Your task to perform on an android device: Show me recent news Image 0: 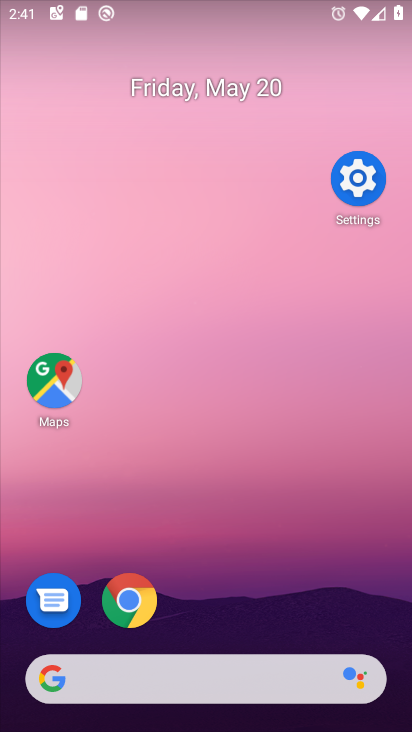
Step 0: drag from (212, 628) to (226, 214)
Your task to perform on an android device: Show me recent news Image 1: 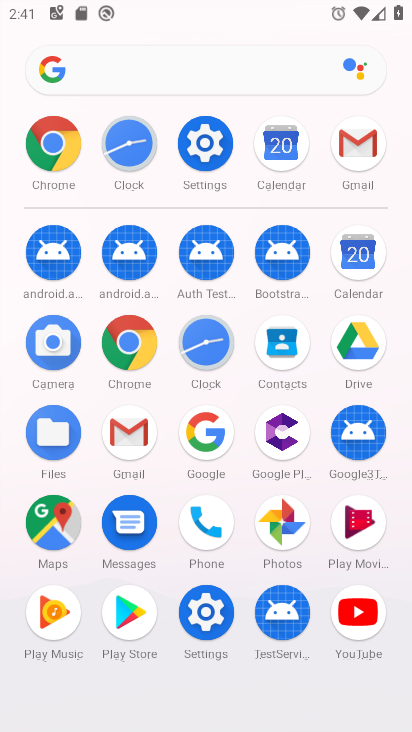
Step 1: click (224, 73)
Your task to perform on an android device: Show me recent news Image 2: 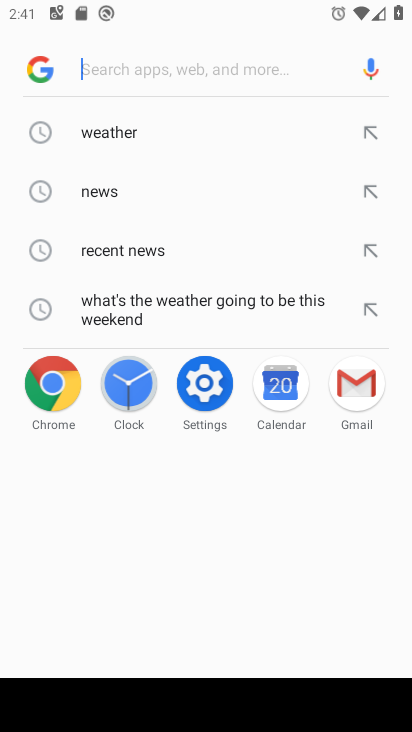
Step 2: type "recent news"
Your task to perform on an android device: Show me recent news Image 3: 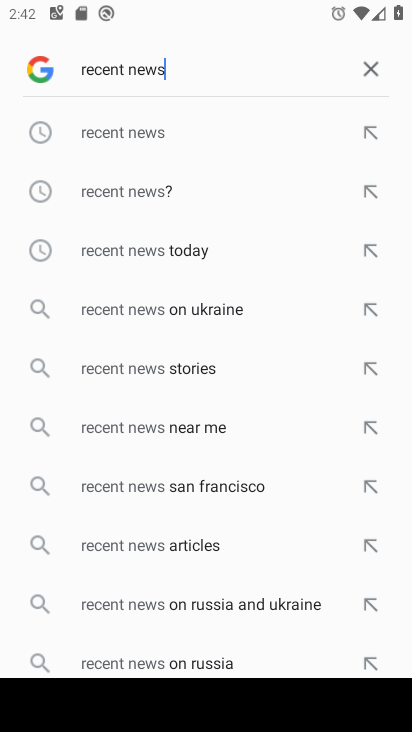
Step 3: click (179, 133)
Your task to perform on an android device: Show me recent news Image 4: 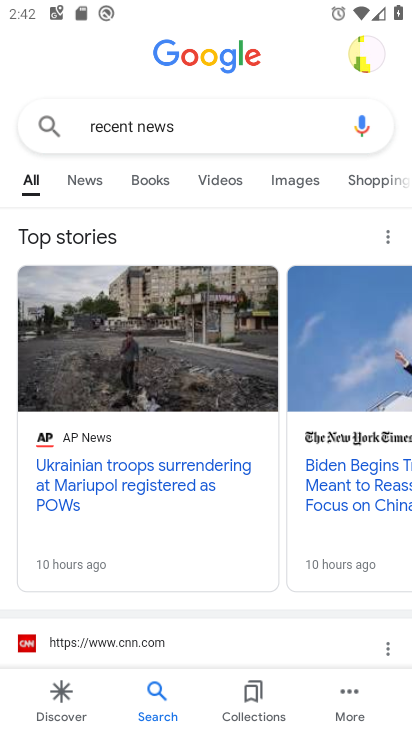
Step 4: task complete